Your task to perform on an android device: Check the weather Image 0: 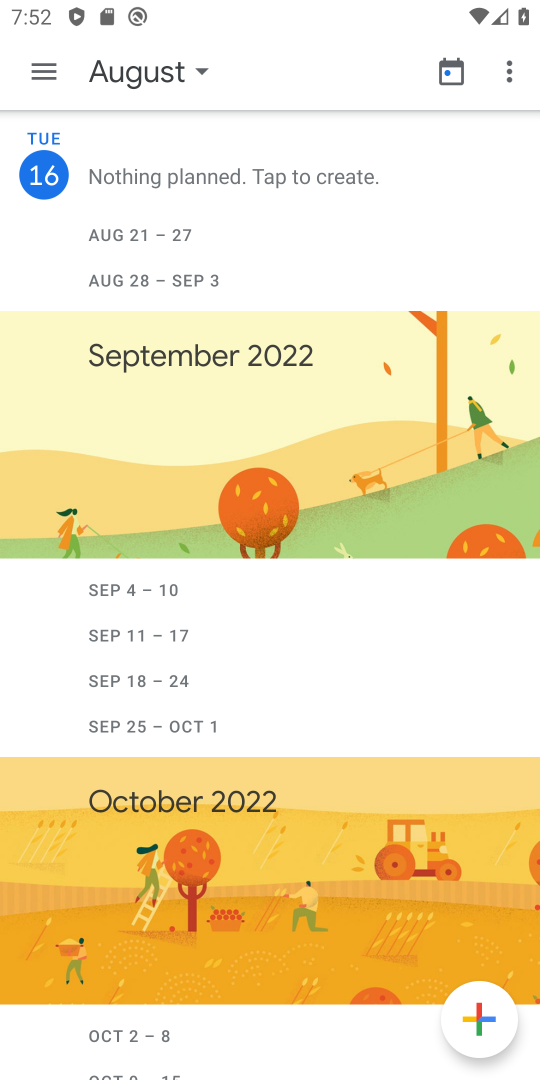
Step 0: drag from (363, 909) to (379, 140)
Your task to perform on an android device: Check the weather Image 1: 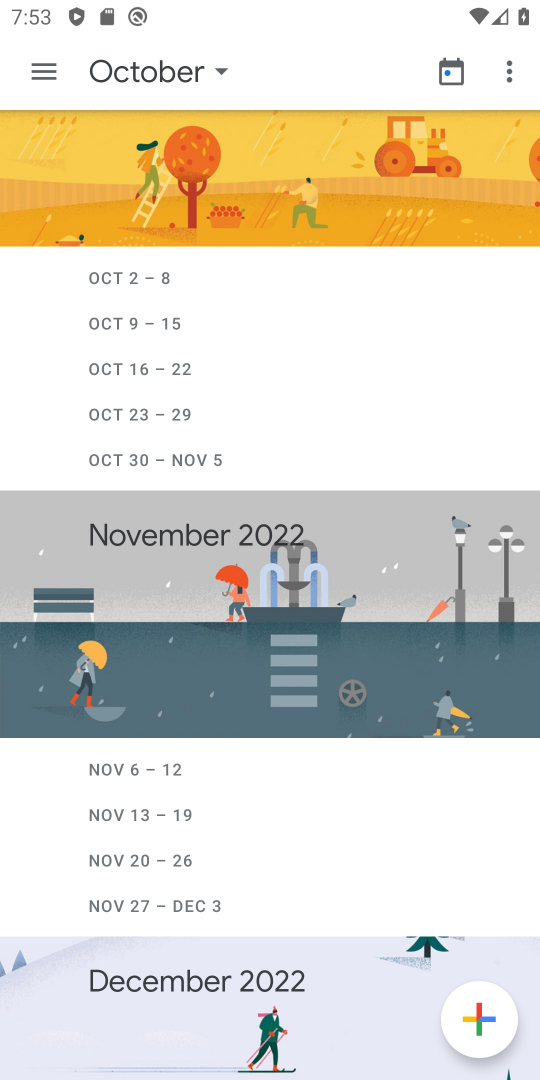
Step 1: press home button
Your task to perform on an android device: Check the weather Image 2: 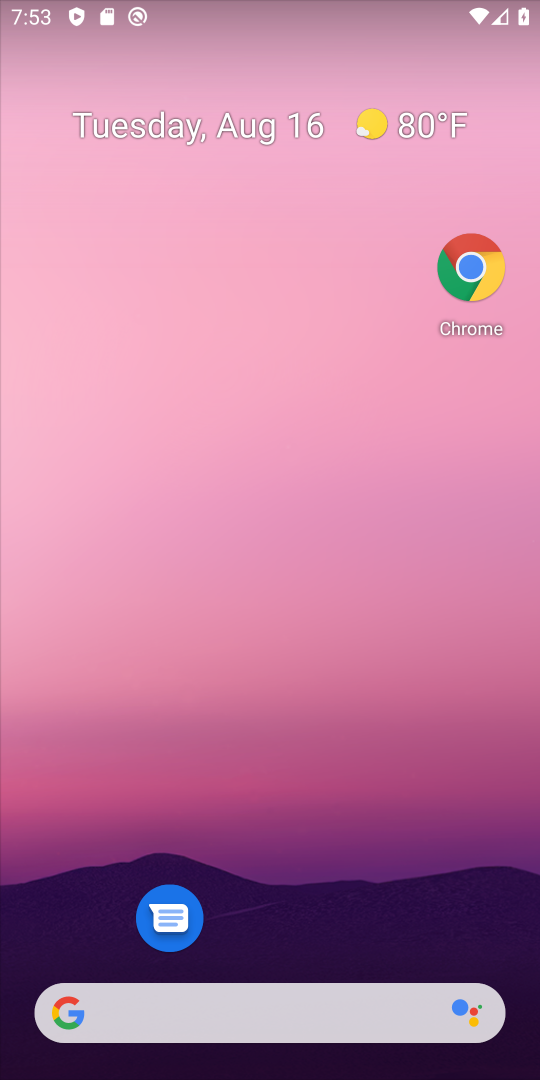
Step 2: drag from (278, 909) to (367, 132)
Your task to perform on an android device: Check the weather Image 3: 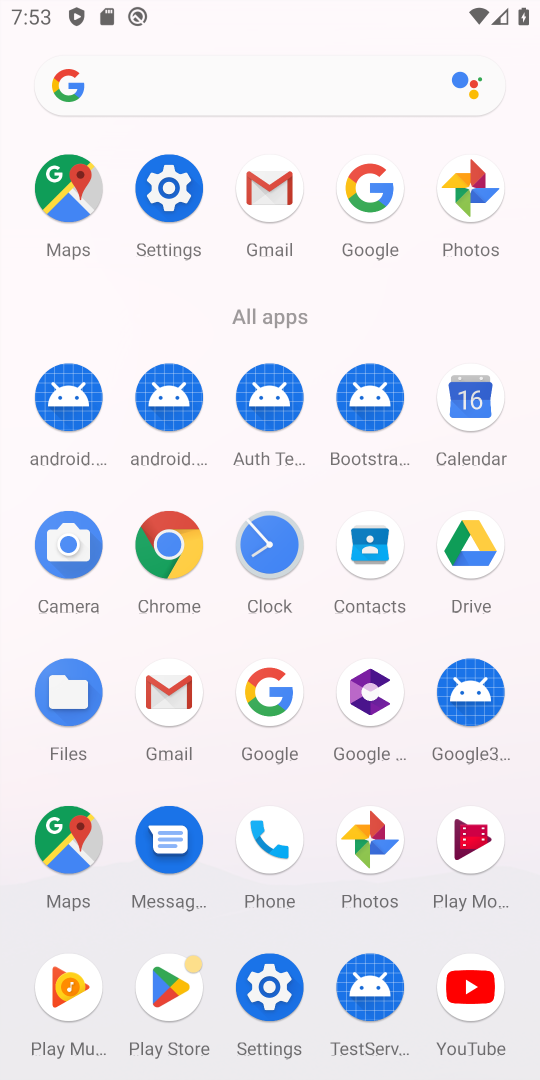
Step 3: click (256, 706)
Your task to perform on an android device: Check the weather Image 4: 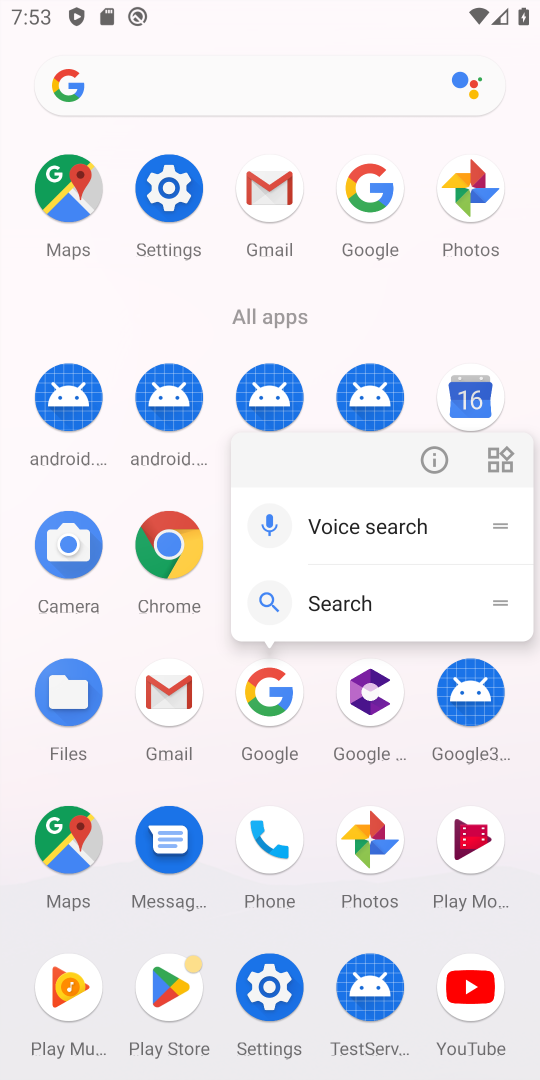
Step 4: click (277, 745)
Your task to perform on an android device: Check the weather Image 5: 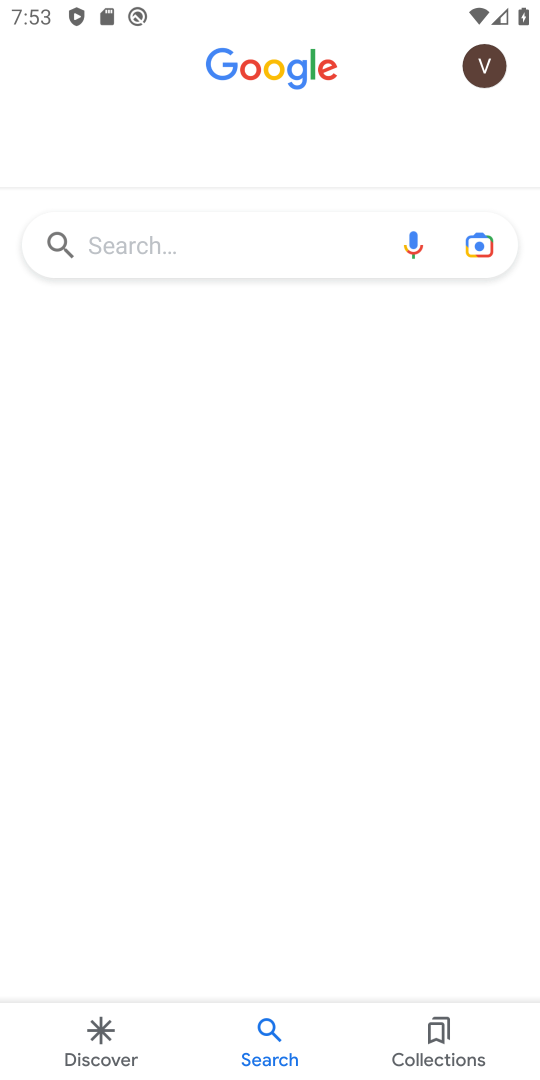
Step 5: click (263, 255)
Your task to perform on an android device: Check the weather Image 6: 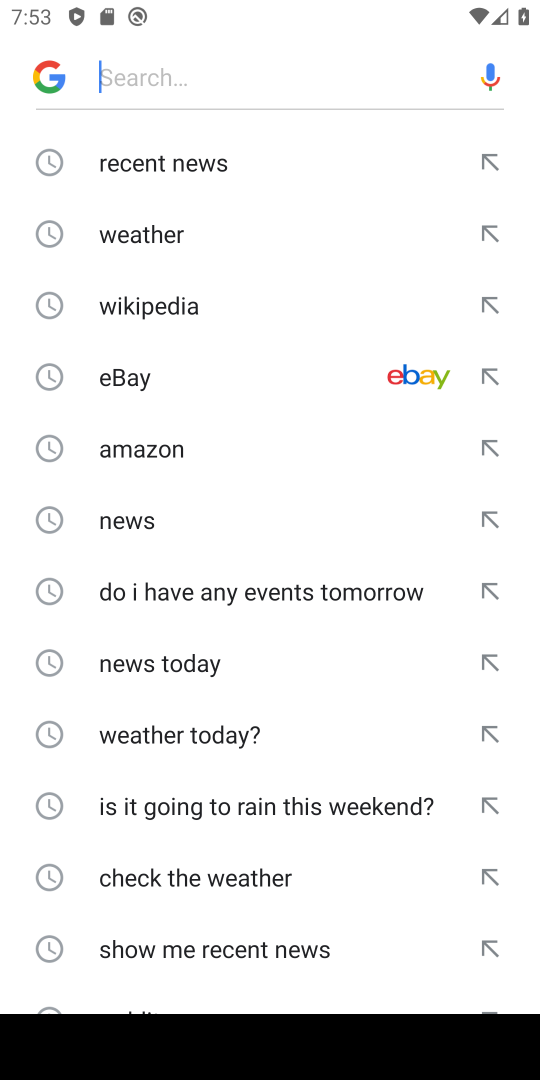
Step 6: click (116, 234)
Your task to perform on an android device: Check the weather Image 7: 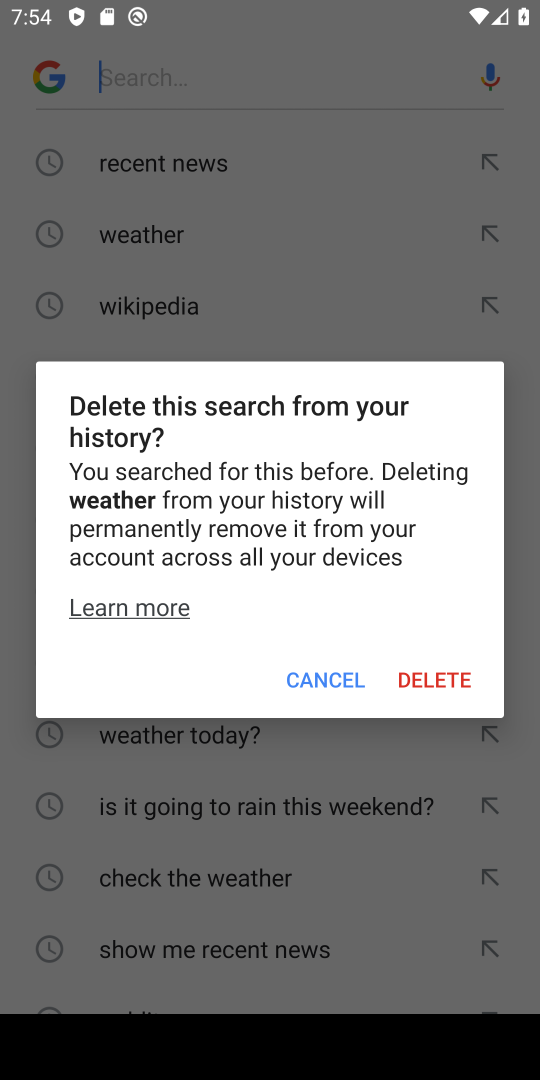
Step 7: click (301, 682)
Your task to perform on an android device: Check the weather Image 8: 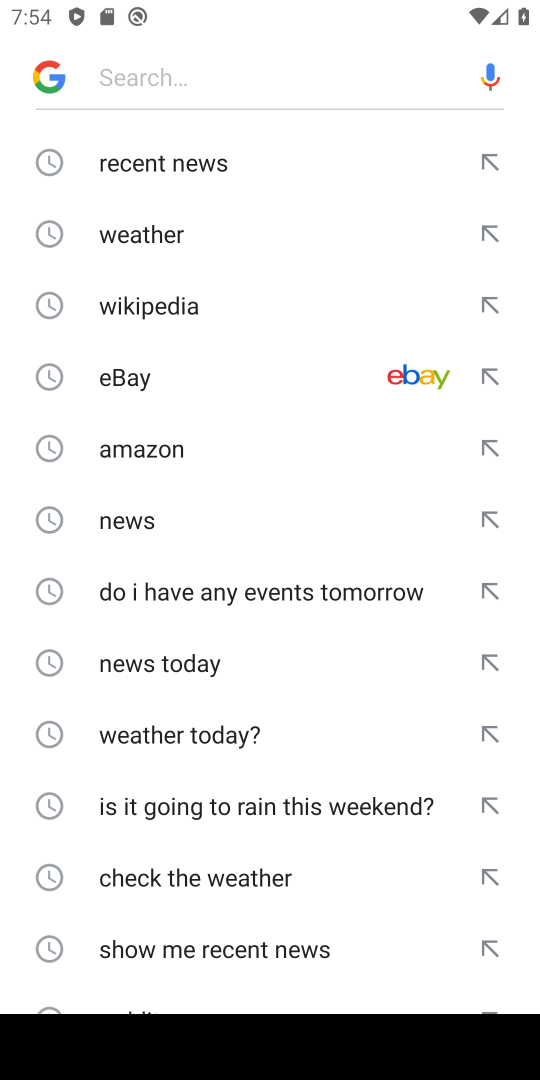
Step 8: click (169, 239)
Your task to perform on an android device: Check the weather Image 9: 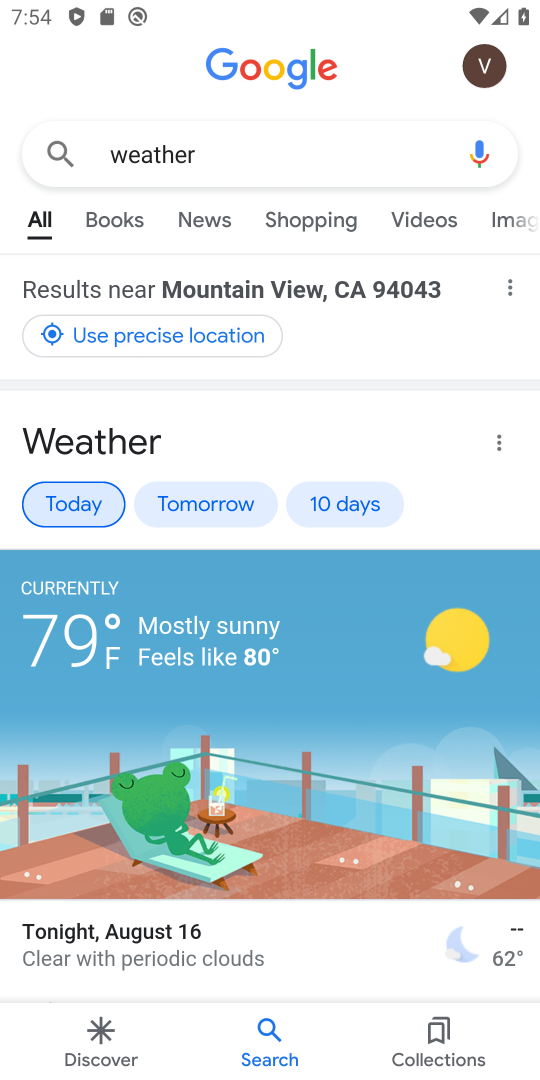
Step 9: task complete